Your task to perform on an android device: Show me the alarms in the clock app Image 0: 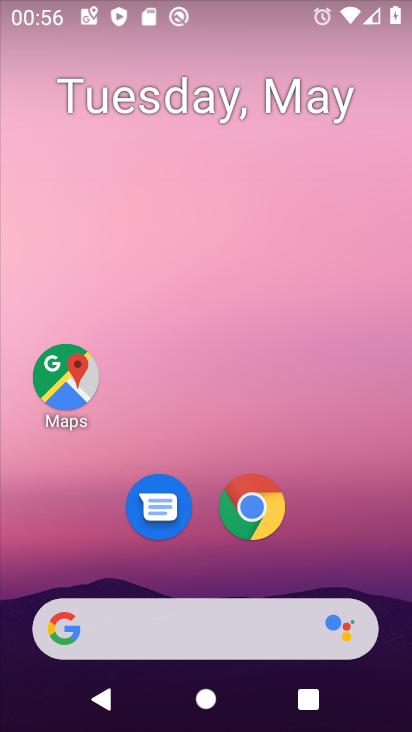
Step 0: drag from (159, 603) to (148, 286)
Your task to perform on an android device: Show me the alarms in the clock app Image 1: 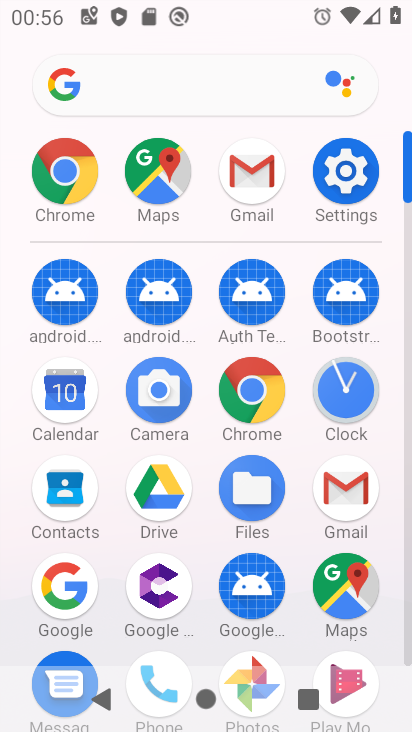
Step 1: click (349, 392)
Your task to perform on an android device: Show me the alarms in the clock app Image 2: 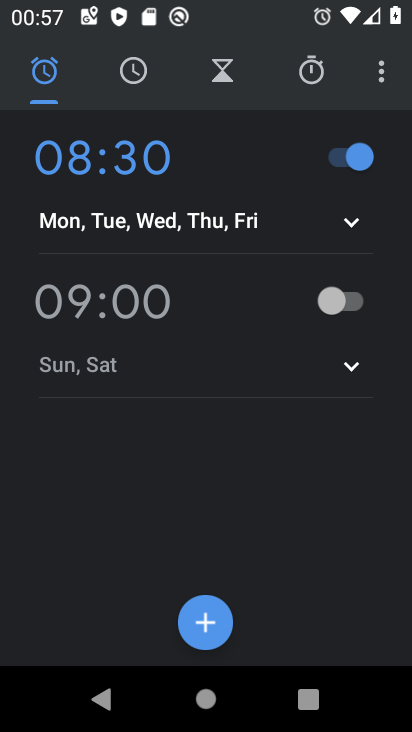
Step 2: task complete